Your task to perform on an android device: Clear the cart on walmart.com. Add "logitech g pro" to the cart on walmart.com Image 0: 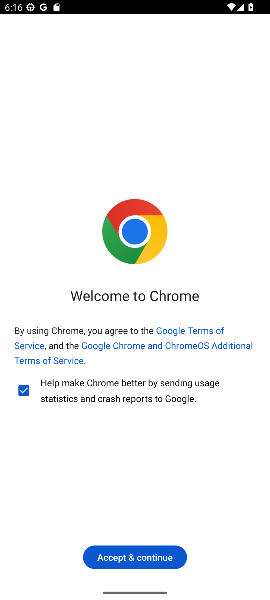
Step 0: press home button
Your task to perform on an android device: Clear the cart on walmart.com. Add "logitech g pro" to the cart on walmart.com Image 1: 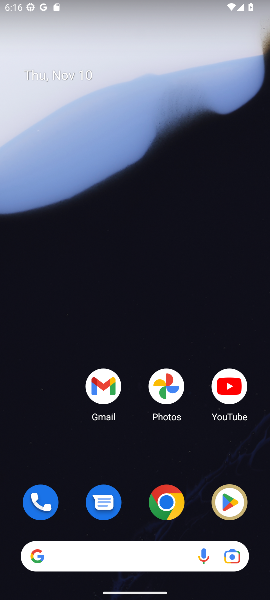
Step 1: click (135, 560)
Your task to perform on an android device: Clear the cart on walmart.com. Add "logitech g pro" to the cart on walmart.com Image 2: 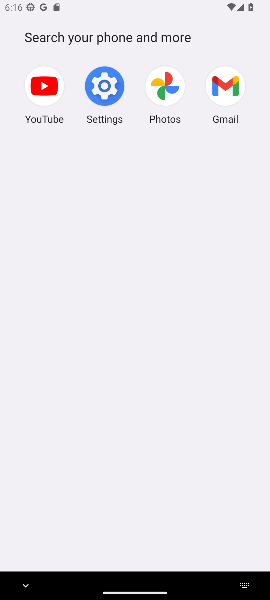
Step 2: press back button
Your task to perform on an android device: Clear the cart on walmart.com. Add "logitech g pro" to the cart on walmart.com Image 3: 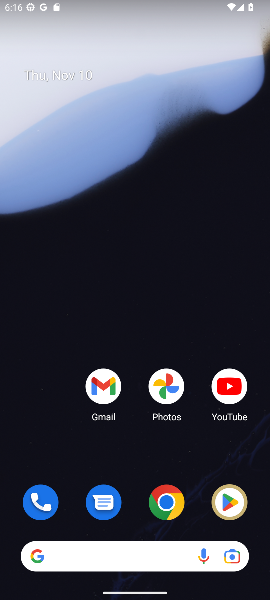
Step 3: drag from (133, 518) to (96, 59)
Your task to perform on an android device: Clear the cart on walmart.com. Add "logitech g pro" to the cart on walmart.com Image 4: 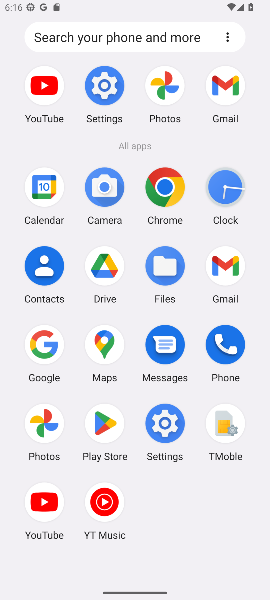
Step 4: click (42, 349)
Your task to perform on an android device: Clear the cart on walmart.com. Add "logitech g pro" to the cart on walmart.com Image 5: 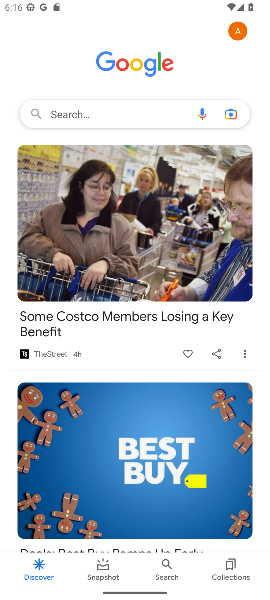
Step 5: click (105, 107)
Your task to perform on an android device: Clear the cart on walmart.com. Add "logitech g pro" to the cart on walmart.com Image 6: 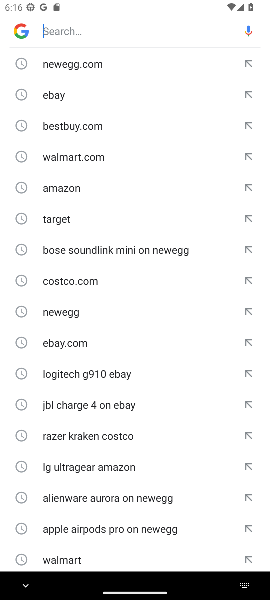
Step 6: type "walmart.com"
Your task to perform on an android device: Clear the cart on walmart.com. Add "logitech g pro" to the cart on walmart.com Image 7: 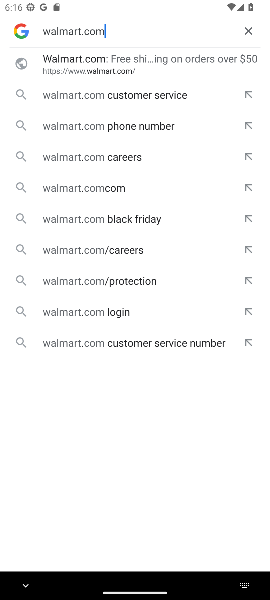
Step 7: click (104, 67)
Your task to perform on an android device: Clear the cart on walmart.com. Add "logitech g pro" to the cart on walmart.com Image 8: 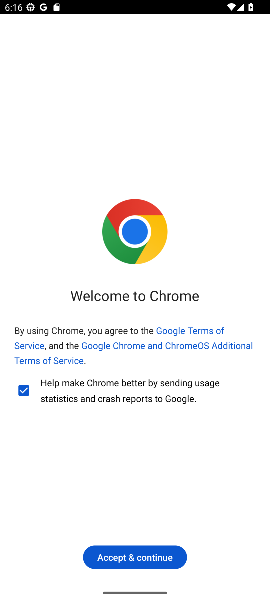
Step 8: click (123, 559)
Your task to perform on an android device: Clear the cart on walmart.com. Add "logitech g pro" to the cart on walmart.com Image 9: 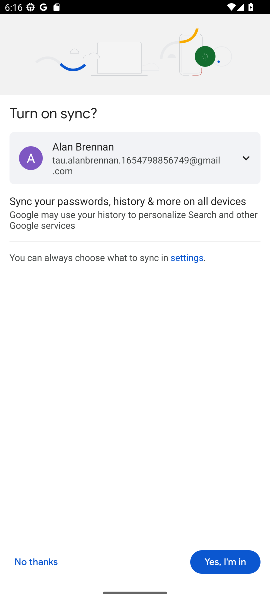
Step 9: click (218, 557)
Your task to perform on an android device: Clear the cart on walmart.com. Add "logitech g pro" to the cart on walmart.com Image 10: 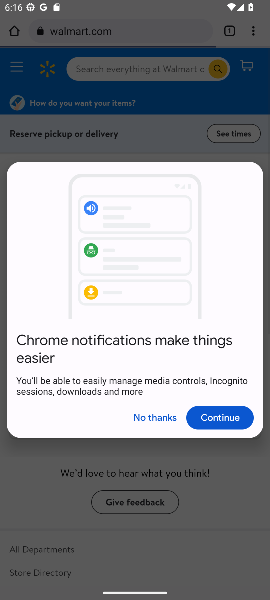
Step 10: click (212, 417)
Your task to perform on an android device: Clear the cart on walmart.com. Add "logitech g pro" to the cart on walmart.com Image 11: 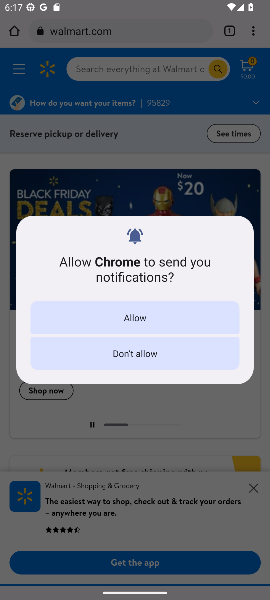
Step 11: click (146, 317)
Your task to perform on an android device: Clear the cart on walmart.com. Add "logitech g pro" to the cart on walmart.com Image 12: 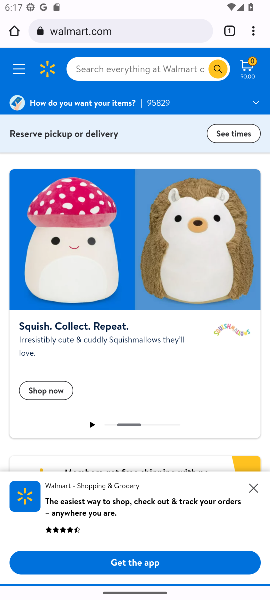
Step 12: click (250, 63)
Your task to perform on an android device: Clear the cart on walmart.com. Add "logitech g pro" to the cart on walmart.com Image 13: 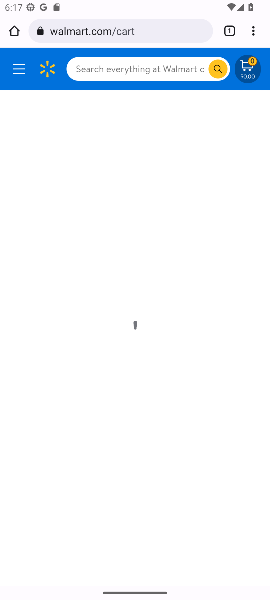
Step 13: click (249, 72)
Your task to perform on an android device: Clear the cart on walmart.com. Add "logitech g pro" to the cart on walmart.com Image 14: 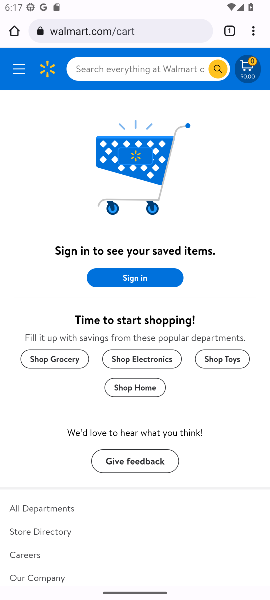
Step 14: click (166, 68)
Your task to perform on an android device: Clear the cart on walmart.com. Add "logitech g pro" to the cart on walmart.com Image 15: 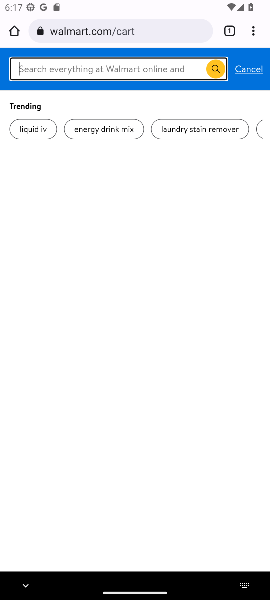
Step 15: type "logitech g pro"
Your task to perform on an android device: Clear the cart on walmart.com. Add "logitech g pro" to the cart on walmart.com Image 16: 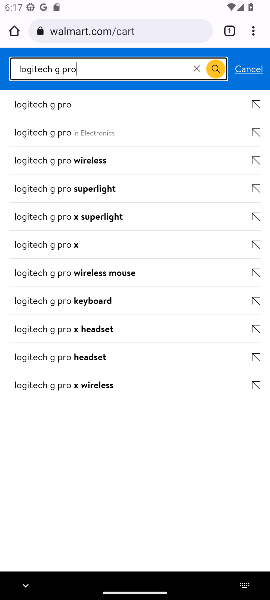
Step 16: click (59, 106)
Your task to perform on an android device: Clear the cart on walmart.com. Add "logitech g pro" to the cart on walmart.com Image 17: 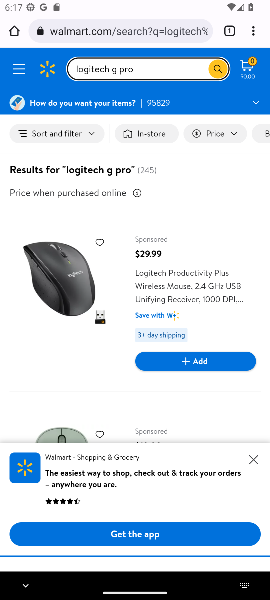
Step 17: click (183, 363)
Your task to perform on an android device: Clear the cart on walmart.com. Add "logitech g pro" to the cart on walmart.com Image 18: 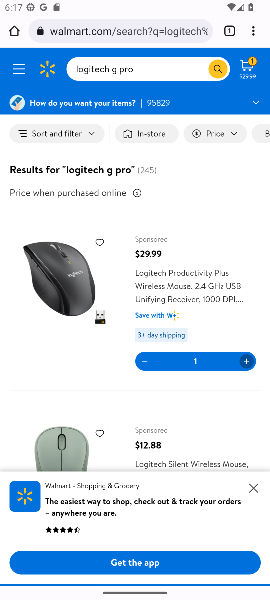
Step 18: task complete